Your task to perform on an android device: turn on improve location accuracy Image 0: 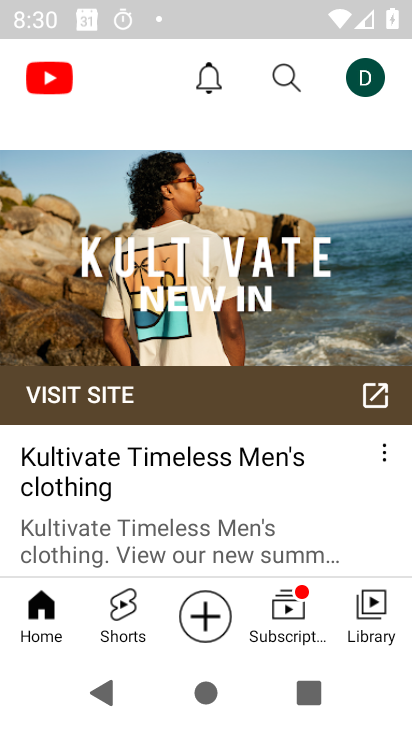
Step 0: press home button
Your task to perform on an android device: turn on improve location accuracy Image 1: 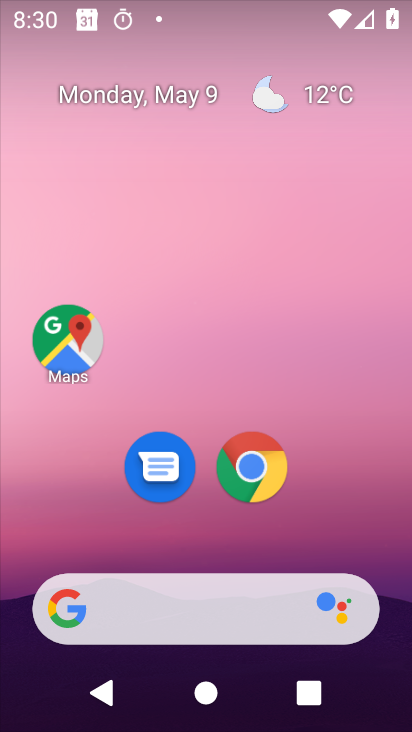
Step 1: drag from (377, 567) to (362, 0)
Your task to perform on an android device: turn on improve location accuracy Image 2: 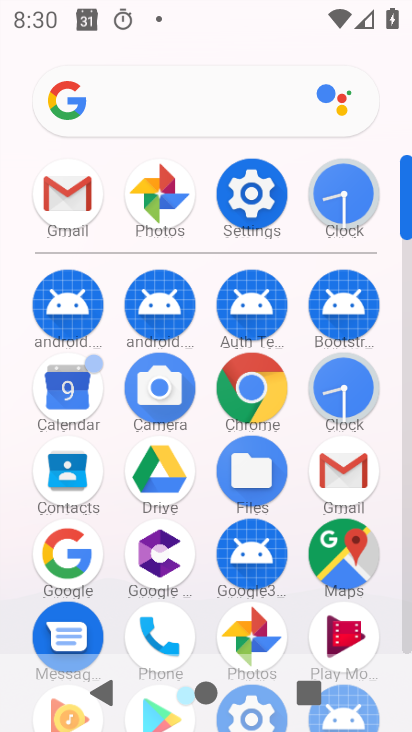
Step 2: click (250, 195)
Your task to perform on an android device: turn on improve location accuracy Image 3: 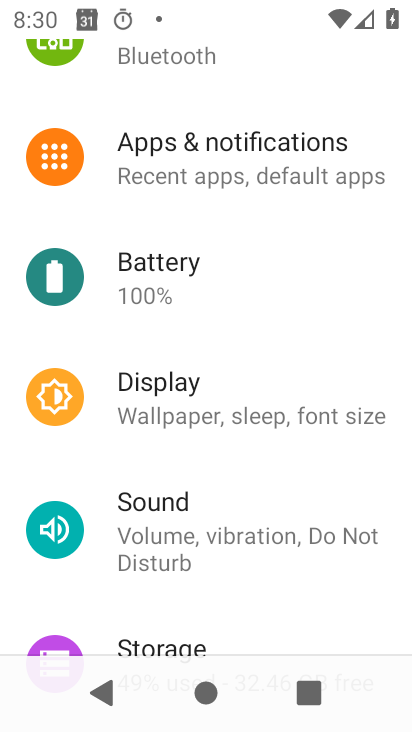
Step 3: drag from (342, 557) to (335, 173)
Your task to perform on an android device: turn on improve location accuracy Image 4: 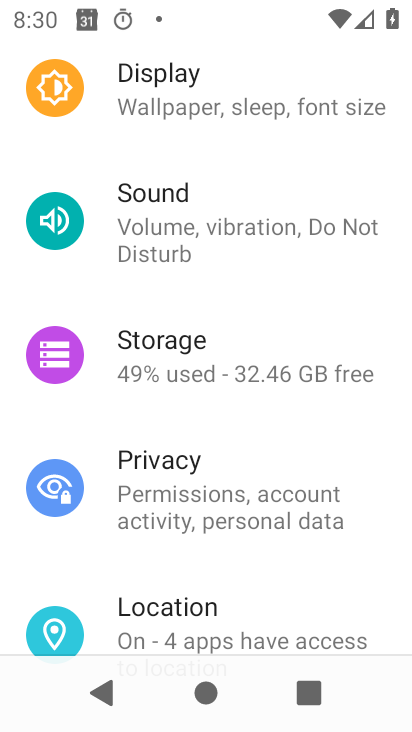
Step 4: drag from (267, 531) to (273, 247)
Your task to perform on an android device: turn on improve location accuracy Image 5: 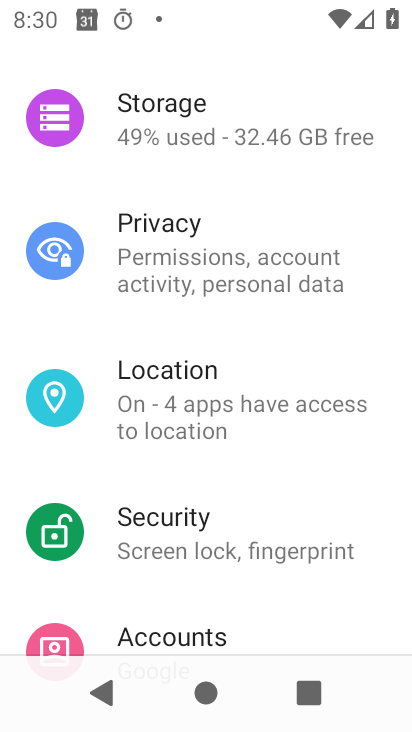
Step 5: click (175, 407)
Your task to perform on an android device: turn on improve location accuracy Image 6: 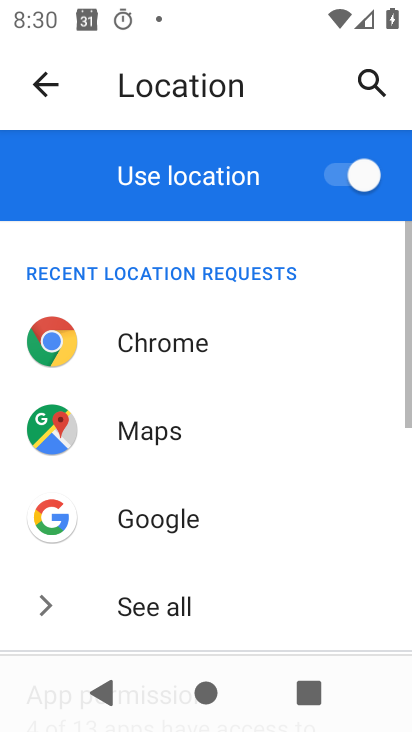
Step 6: drag from (282, 563) to (274, 152)
Your task to perform on an android device: turn on improve location accuracy Image 7: 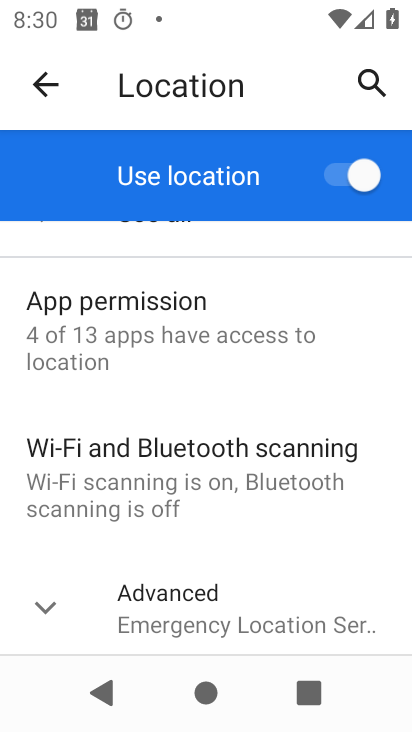
Step 7: click (48, 614)
Your task to perform on an android device: turn on improve location accuracy Image 8: 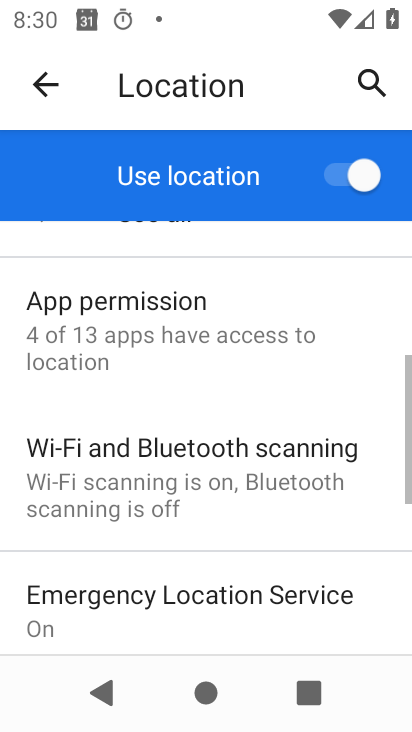
Step 8: drag from (184, 605) to (197, 295)
Your task to perform on an android device: turn on improve location accuracy Image 9: 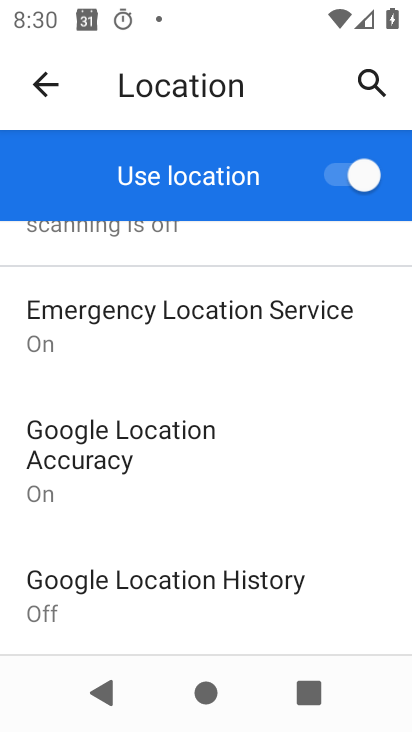
Step 9: click (110, 460)
Your task to perform on an android device: turn on improve location accuracy Image 10: 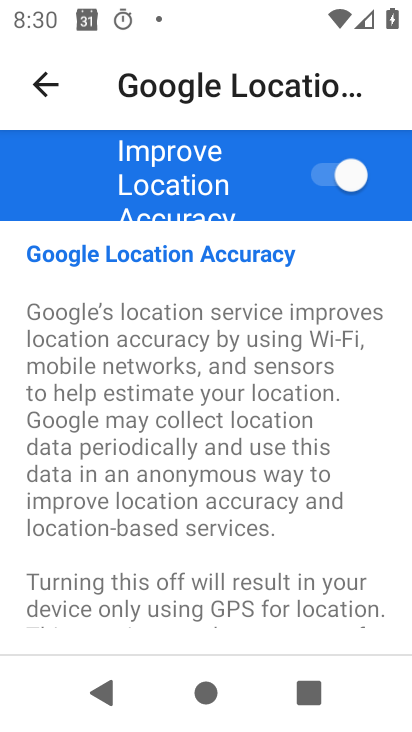
Step 10: task complete